Your task to perform on an android device: Open the web browser Image 0: 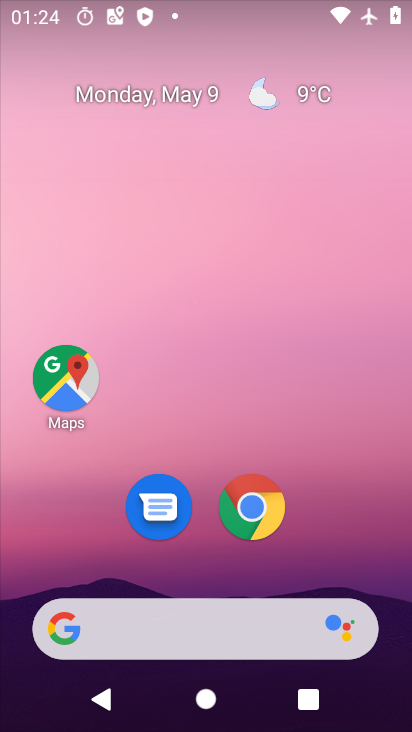
Step 0: click (249, 507)
Your task to perform on an android device: Open the web browser Image 1: 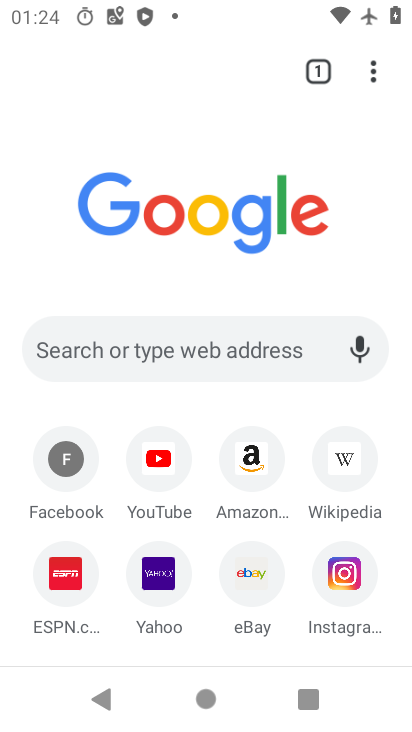
Step 1: task complete